Your task to perform on an android device: How much does a 3 bedroom apartment rent for in San Francisco? Image 0: 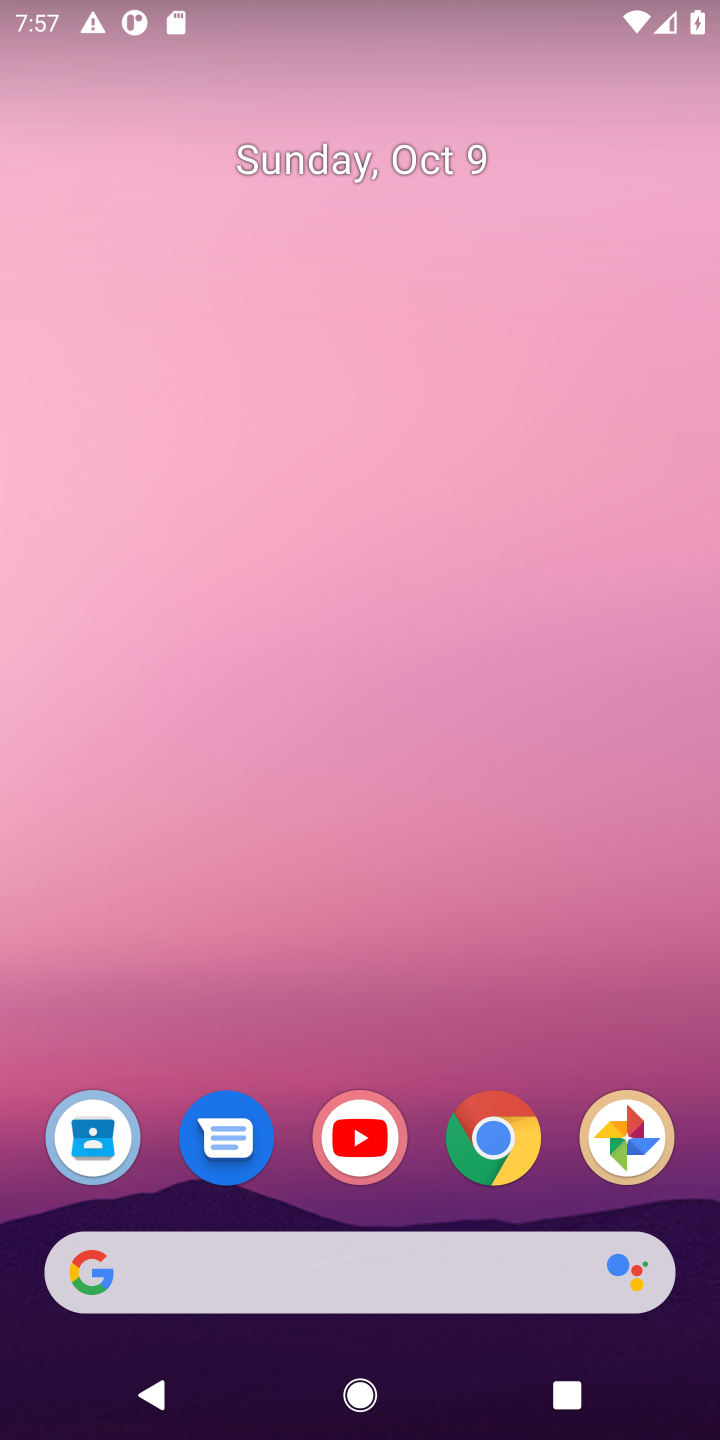
Step 0: drag from (226, 1220) to (237, 334)
Your task to perform on an android device: How much does a 3 bedroom apartment rent for in San Francisco? Image 1: 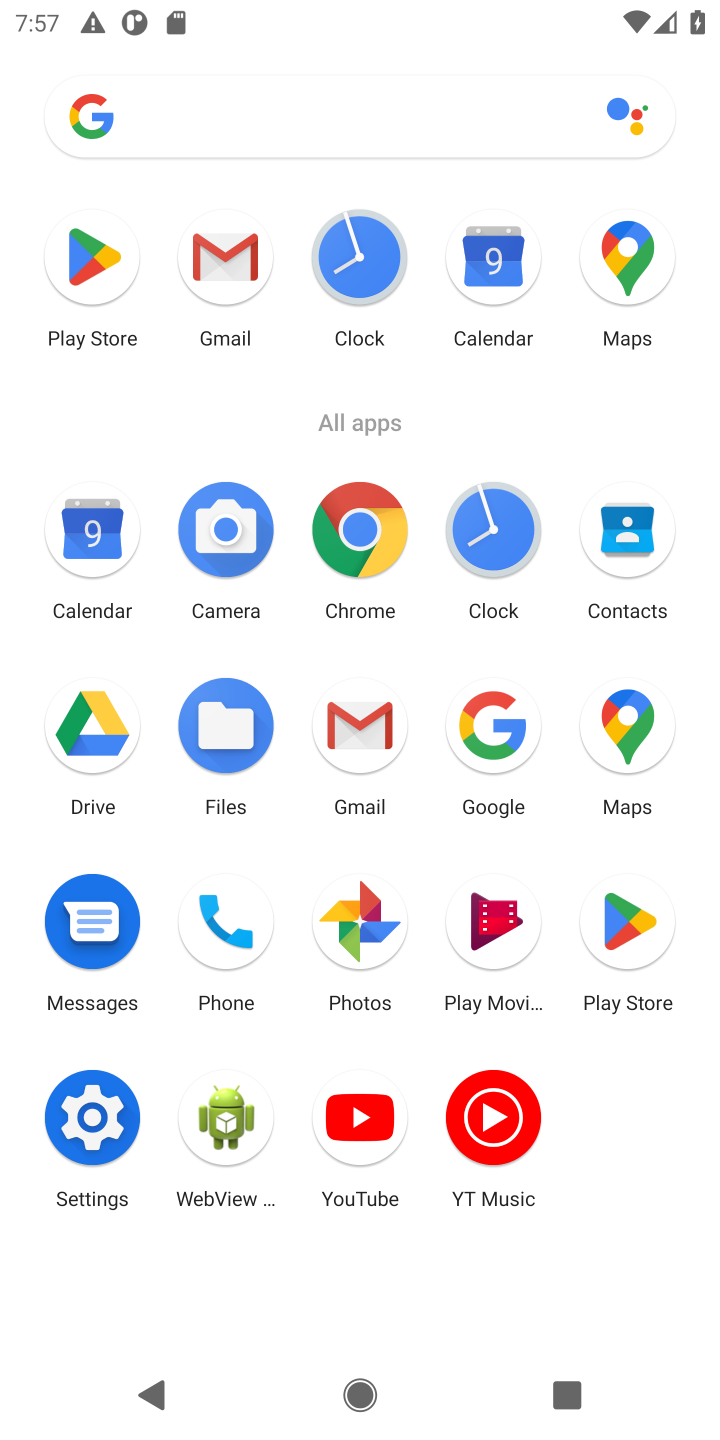
Step 1: click (470, 714)
Your task to perform on an android device: How much does a 3 bedroom apartment rent for in San Francisco? Image 2: 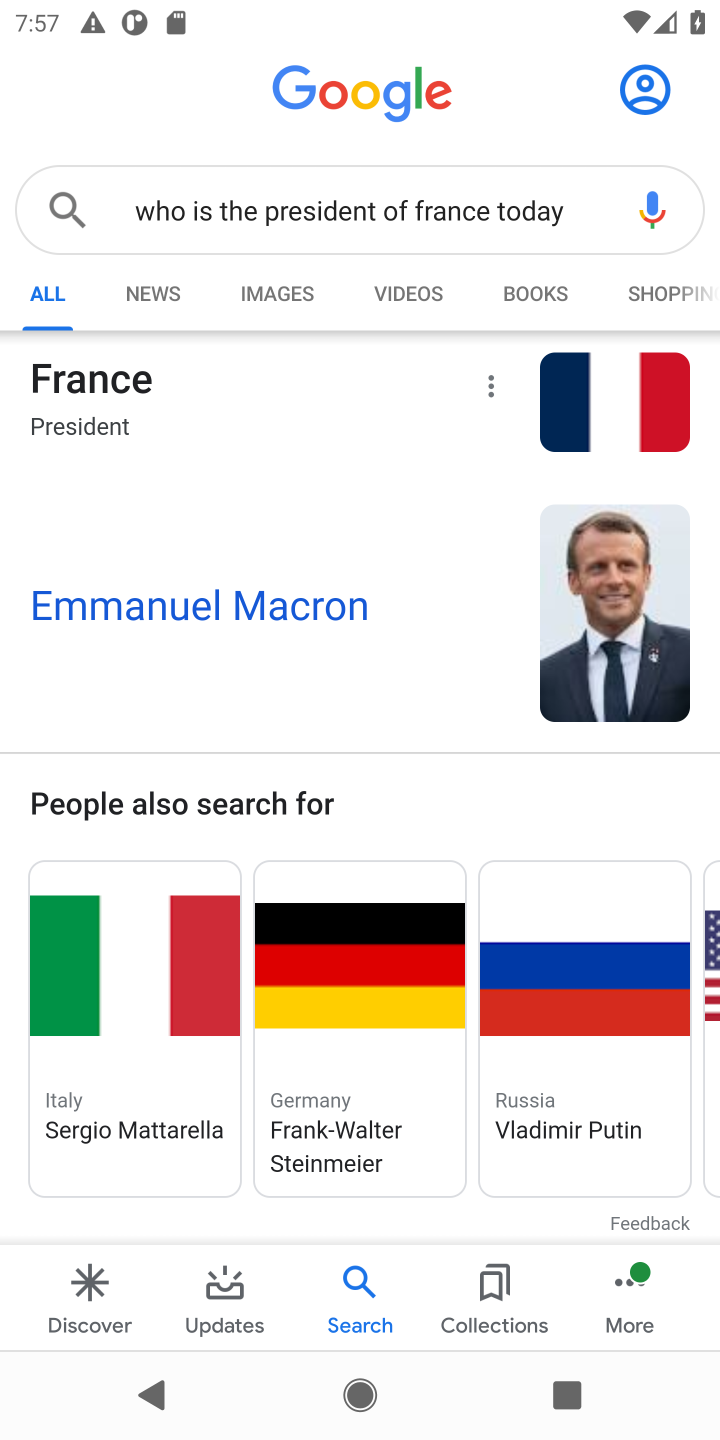
Step 2: click (551, 201)
Your task to perform on an android device: How much does a 3 bedroom apartment rent for in San Francisco? Image 3: 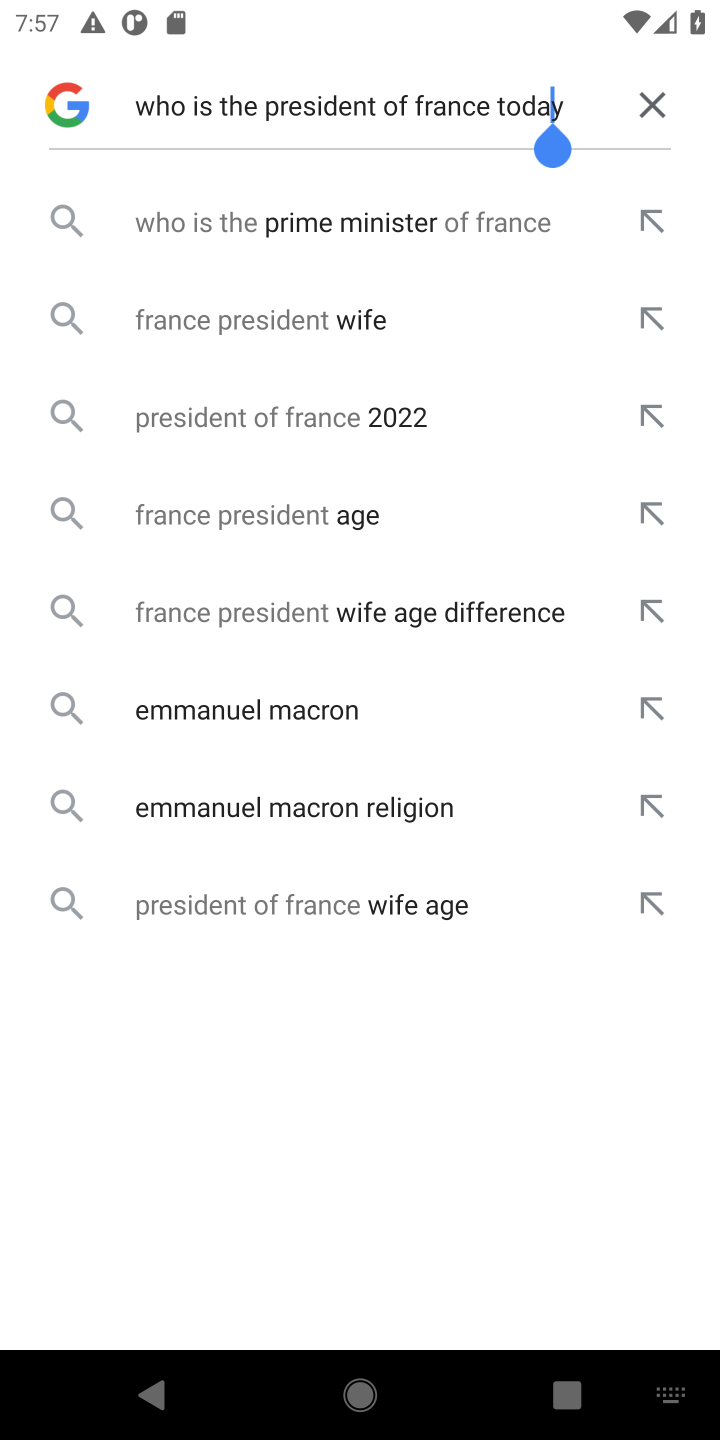
Step 3: click (663, 94)
Your task to perform on an android device: How much does a 3 bedroom apartment rent for in San Francisco? Image 4: 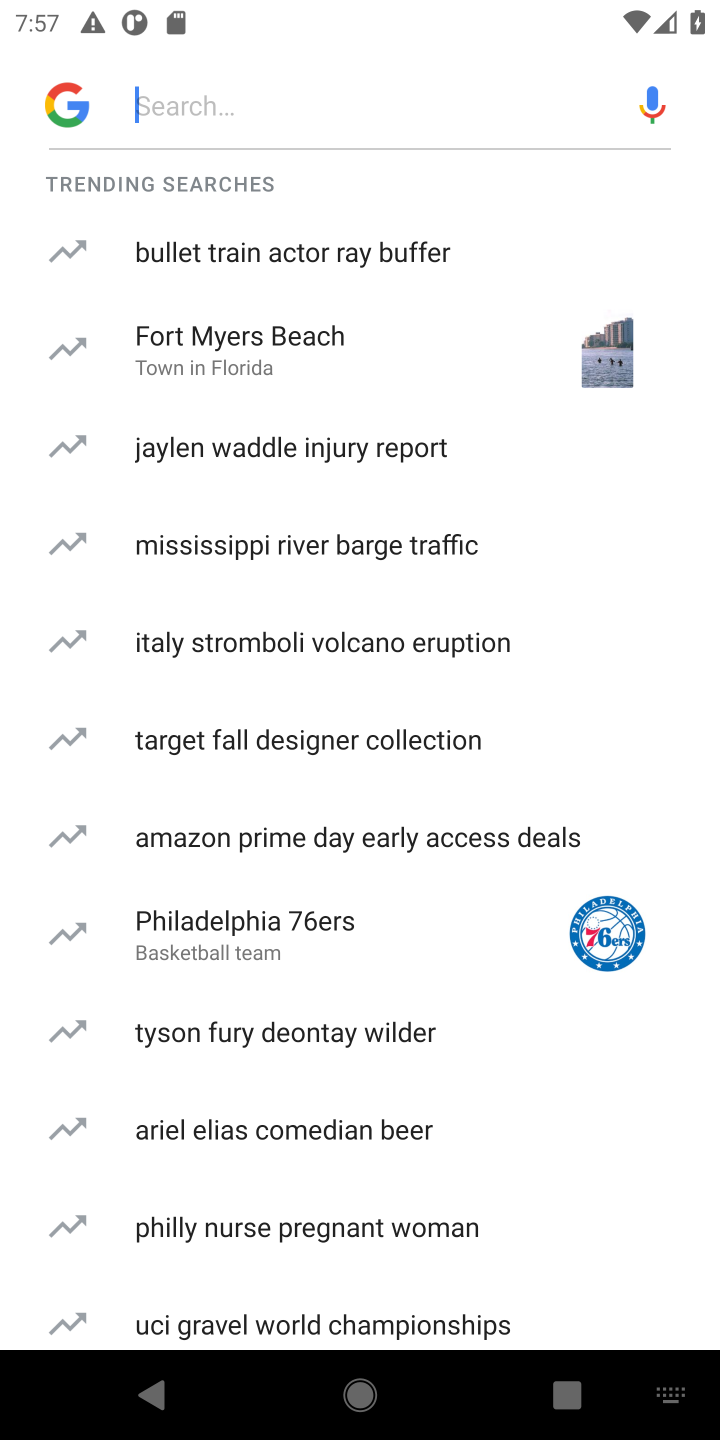
Step 4: click (189, 62)
Your task to perform on an android device: How much does a 3 bedroom apartment rent for in San Francisco? Image 5: 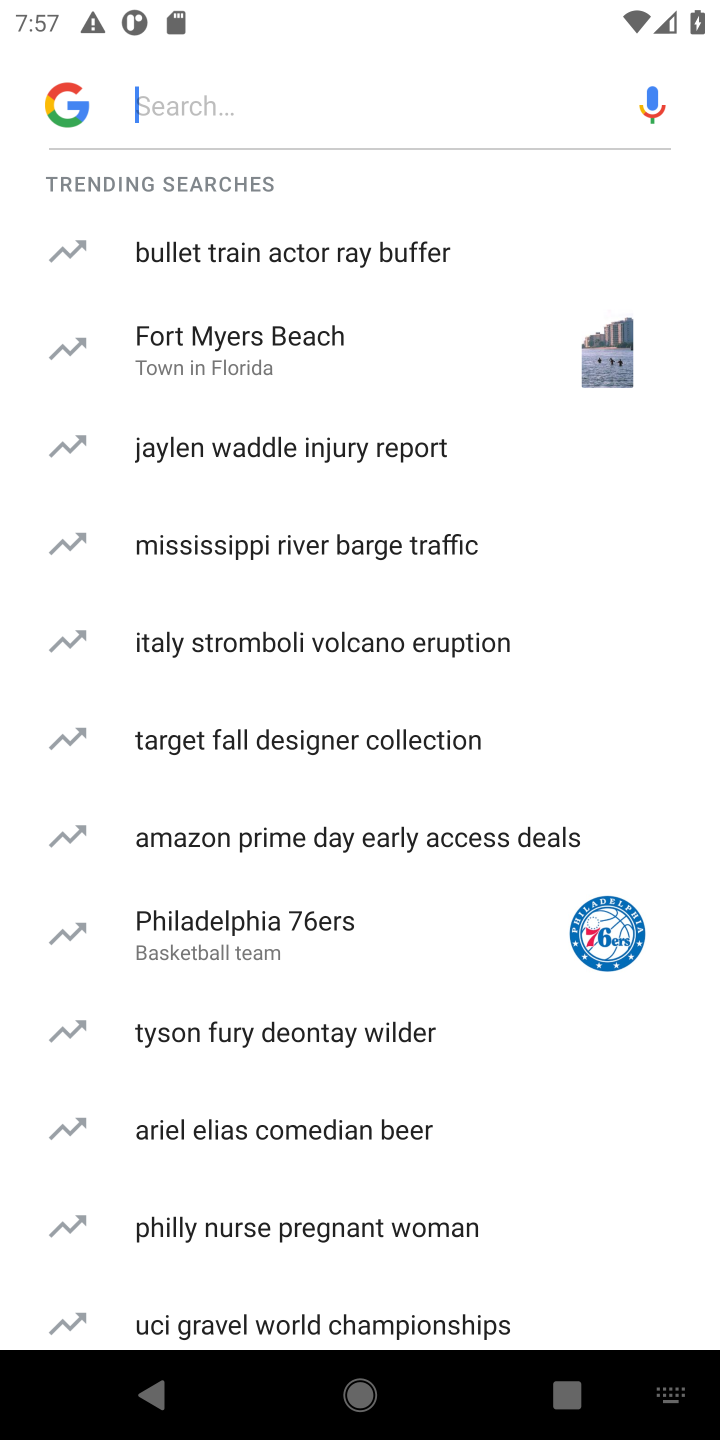
Step 5: click (291, 141)
Your task to perform on an android device: How much does a 3 bedroom apartment rent for in San Francisco? Image 6: 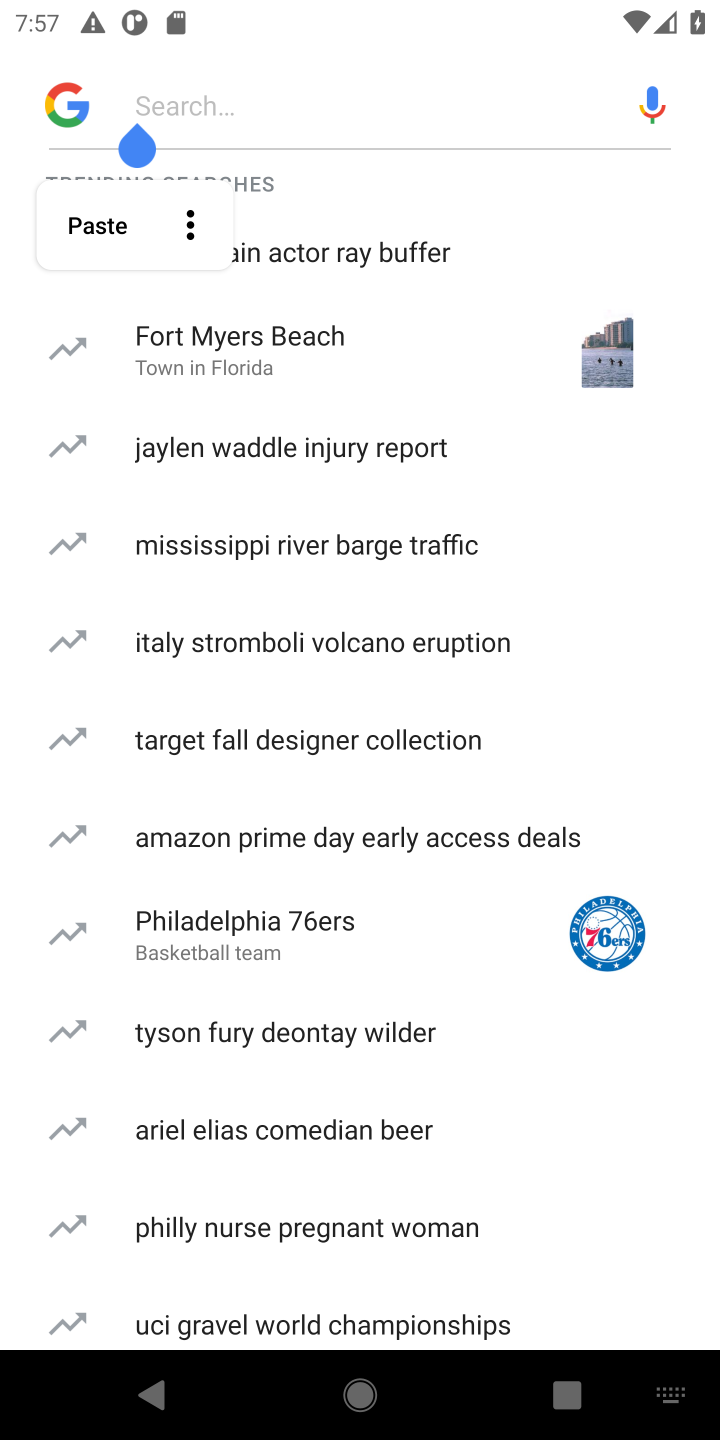
Step 6: type "How much does a 3 bedroom apartment rent for in San Francisco? "
Your task to perform on an android device: How much does a 3 bedroom apartment rent for in San Francisco? Image 7: 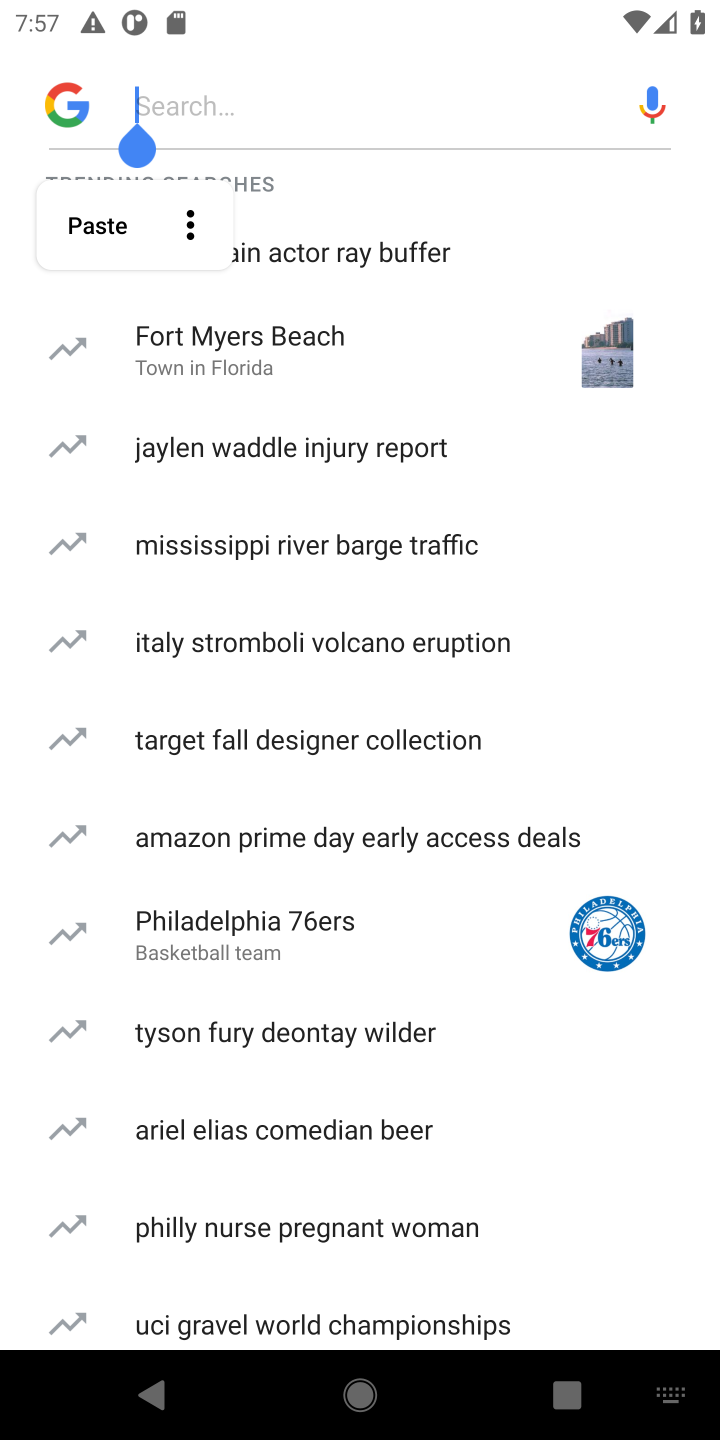
Step 7: click (316, 105)
Your task to perform on an android device: How much does a 3 bedroom apartment rent for in San Francisco? Image 8: 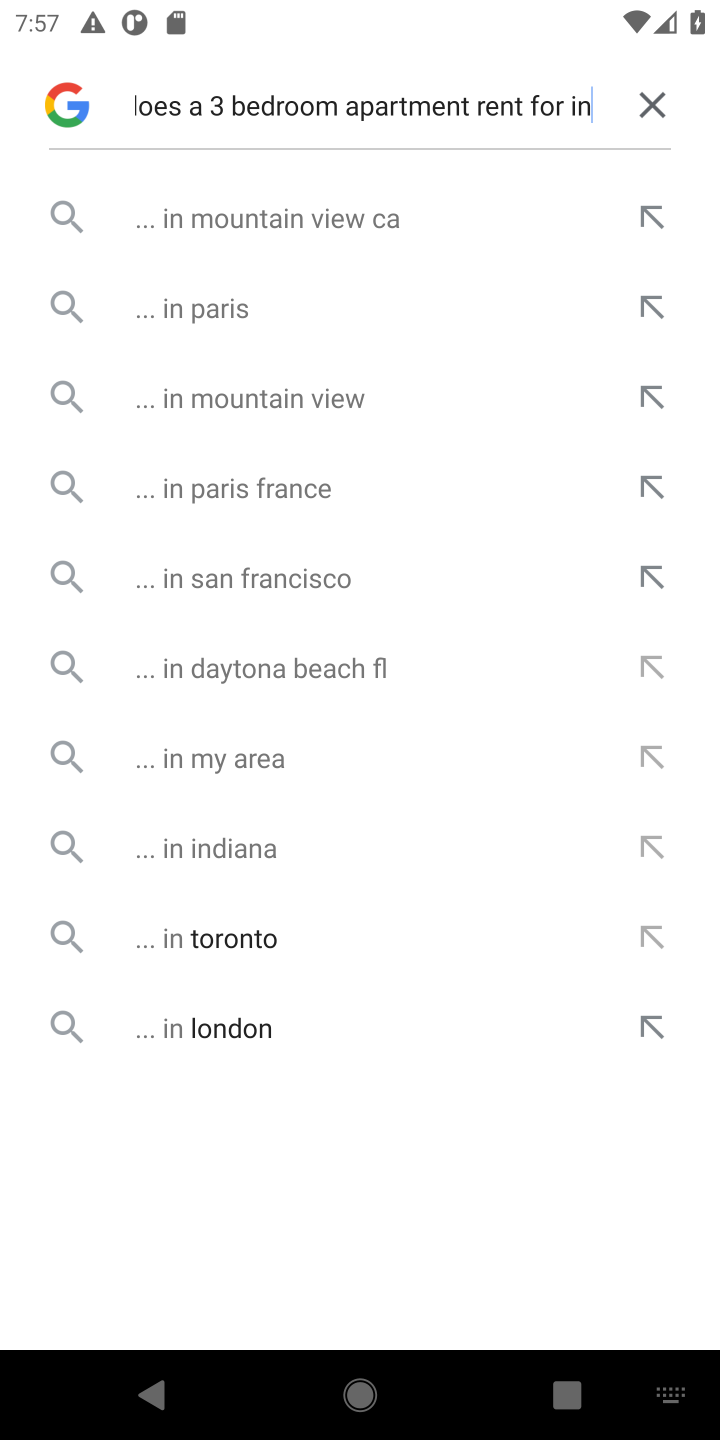
Step 8: click (106, 213)
Your task to perform on an android device: How much does a 3 bedroom apartment rent for in San Francisco? Image 9: 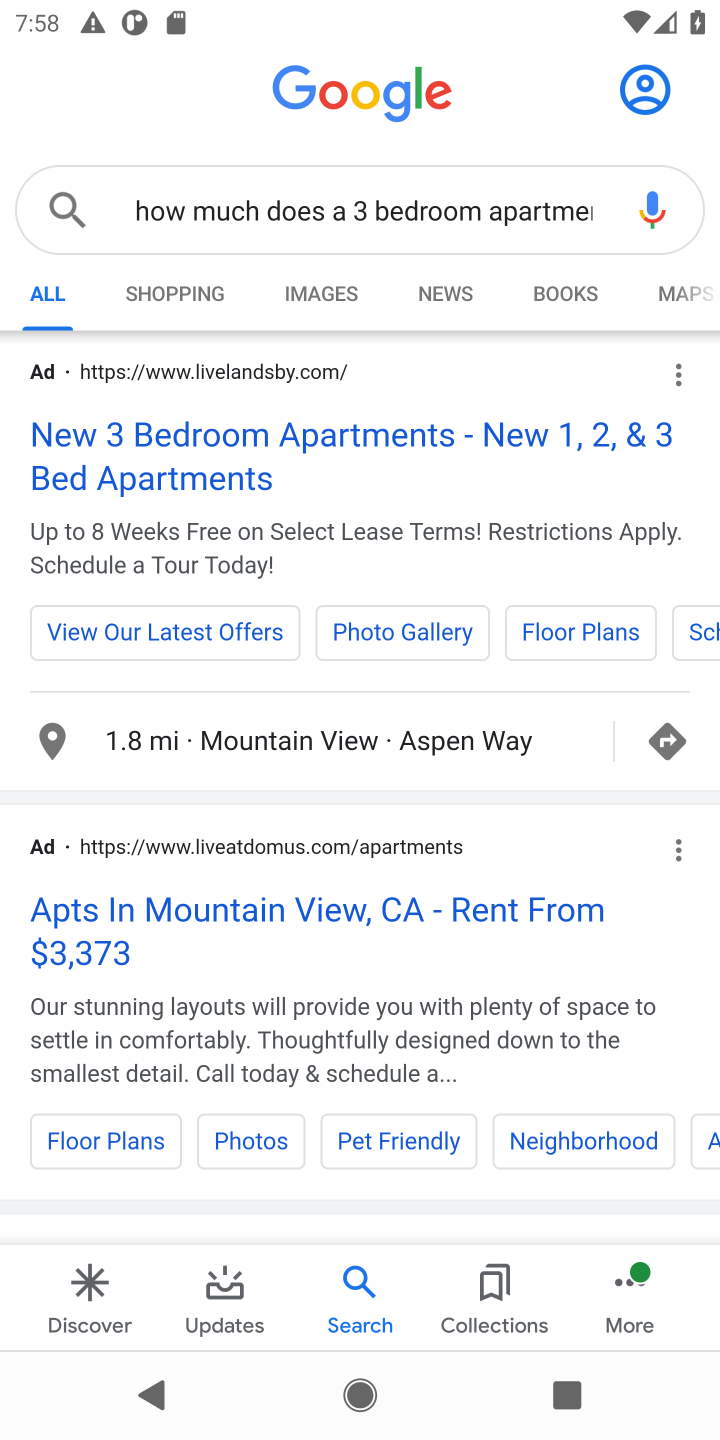
Step 9: drag from (307, 1054) to (356, 456)
Your task to perform on an android device: How much does a 3 bedroom apartment rent for in San Francisco? Image 10: 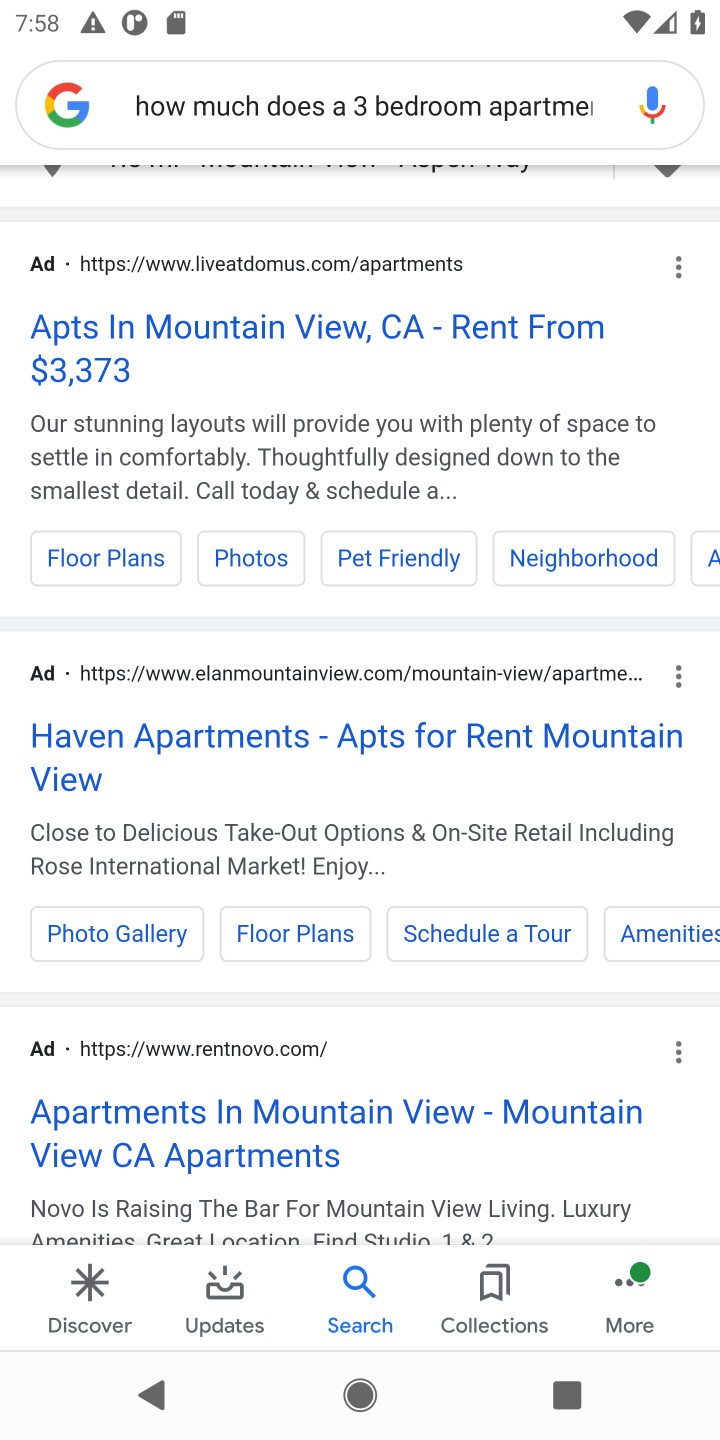
Step 10: drag from (253, 415) to (298, 1076)
Your task to perform on an android device: How much does a 3 bedroom apartment rent for in San Francisco? Image 11: 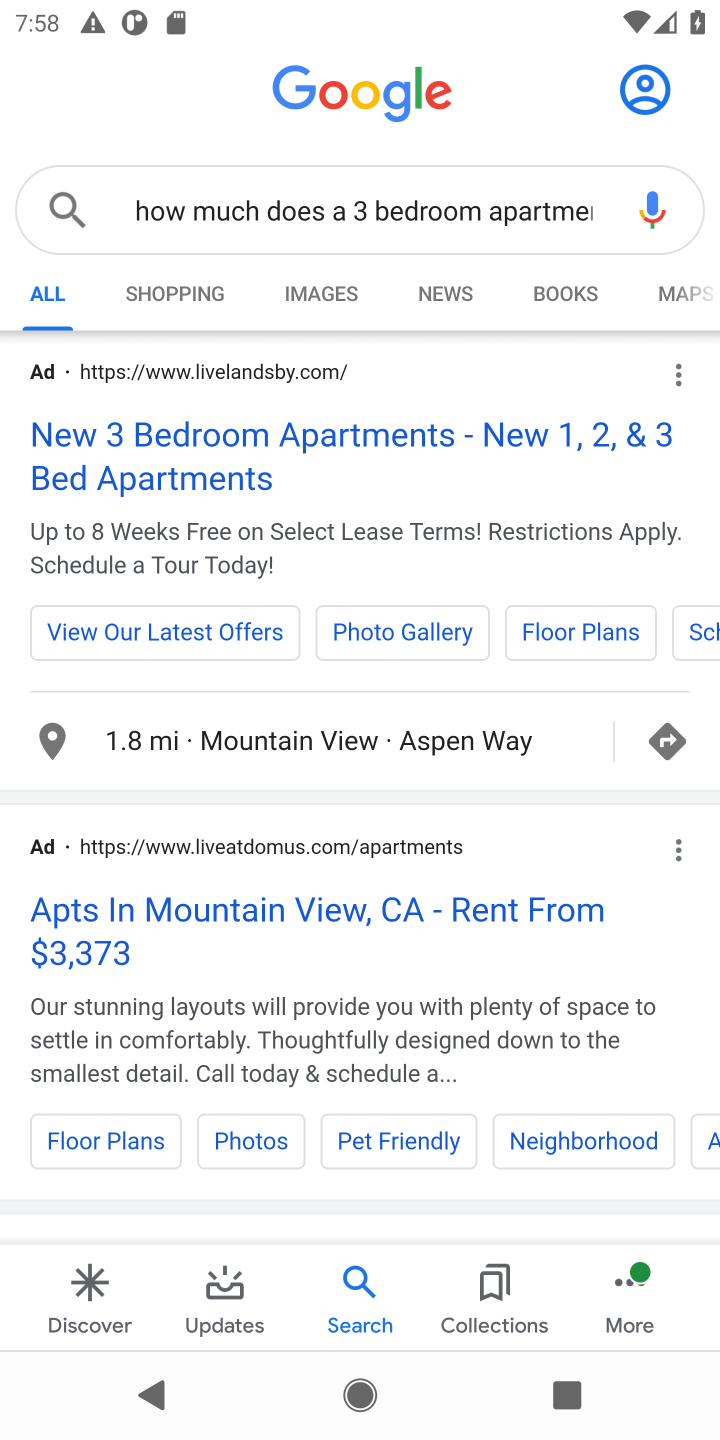
Step 11: click (162, 479)
Your task to perform on an android device: How much does a 3 bedroom apartment rent for in San Francisco? Image 12: 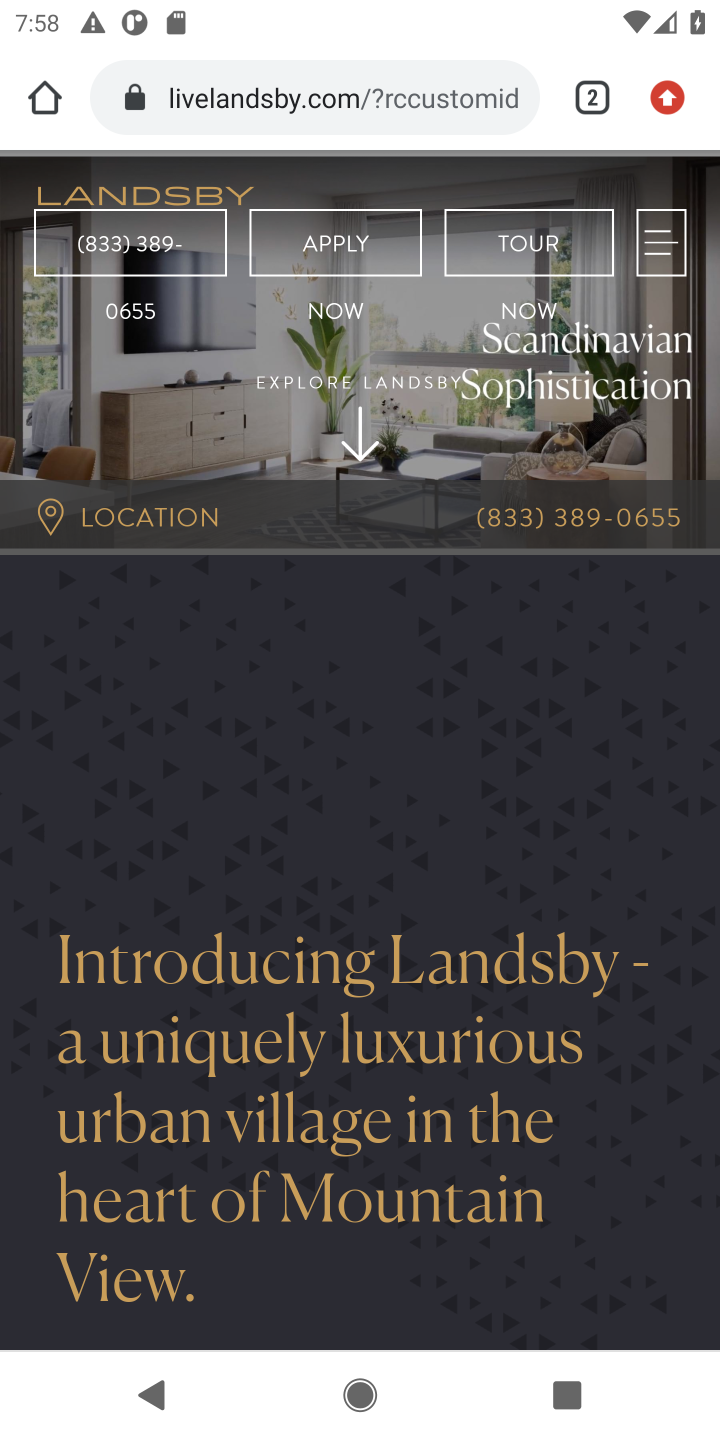
Step 12: drag from (292, 1189) to (370, 581)
Your task to perform on an android device: How much does a 3 bedroom apartment rent for in San Francisco? Image 13: 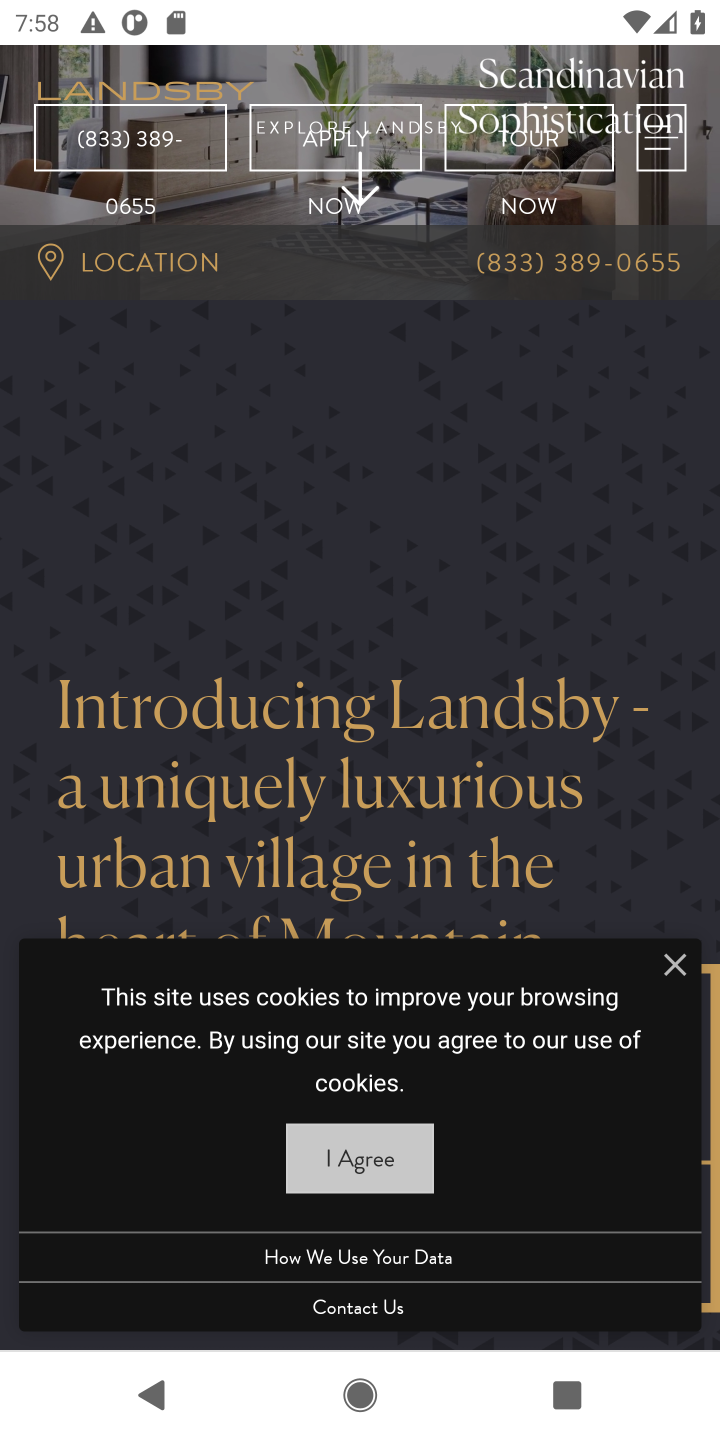
Step 13: drag from (433, 1167) to (525, 857)
Your task to perform on an android device: How much does a 3 bedroom apartment rent for in San Francisco? Image 14: 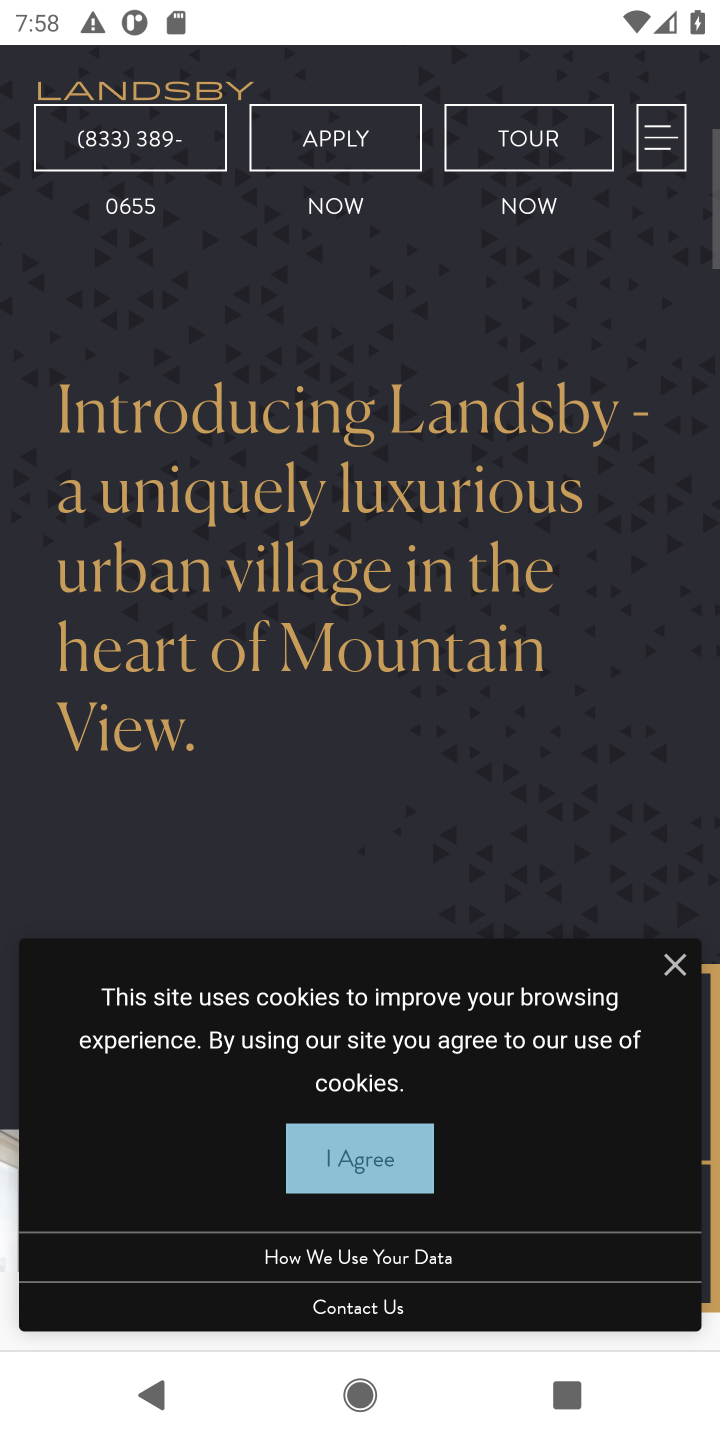
Step 14: click (687, 976)
Your task to perform on an android device: How much does a 3 bedroom apartment rent for in San Francisco? Image 15: 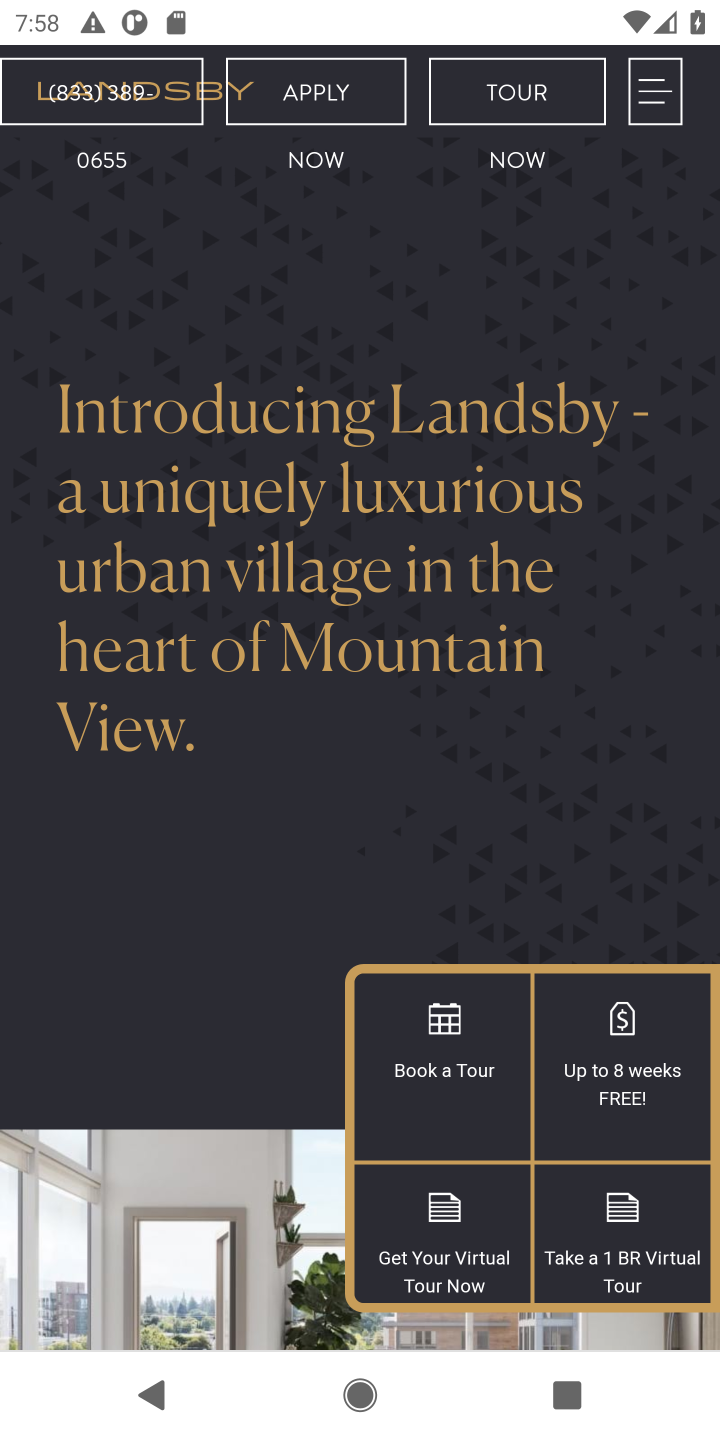
Step 15: task complete